Your task to perform on an android device: turn off priority inbox in the gmail app Image 0: 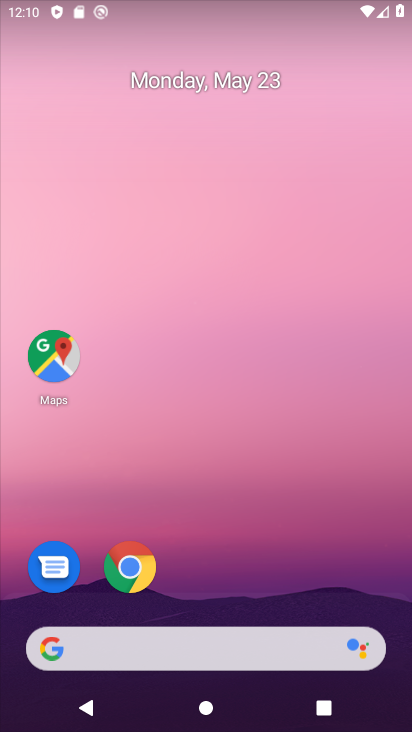
Step 0: drag from (298, 595) to (272, 93)
Your task to perform on an android device: turn off priority inbox in the gmail app Image 1: 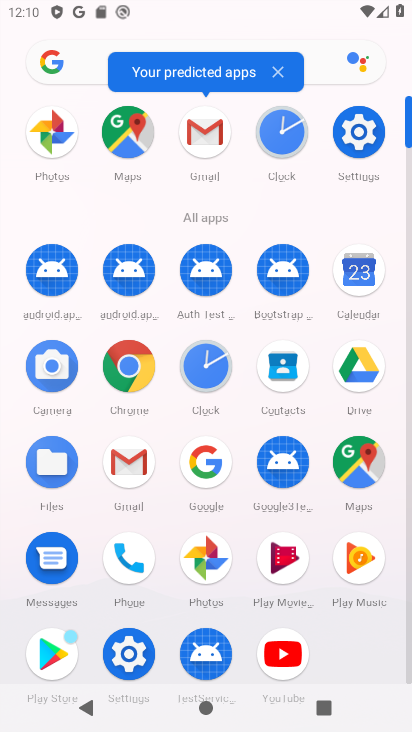
Step 1: click (201, 157)
Your task to perform on an android device: turn off priority inbox in the gmail app Image 2: 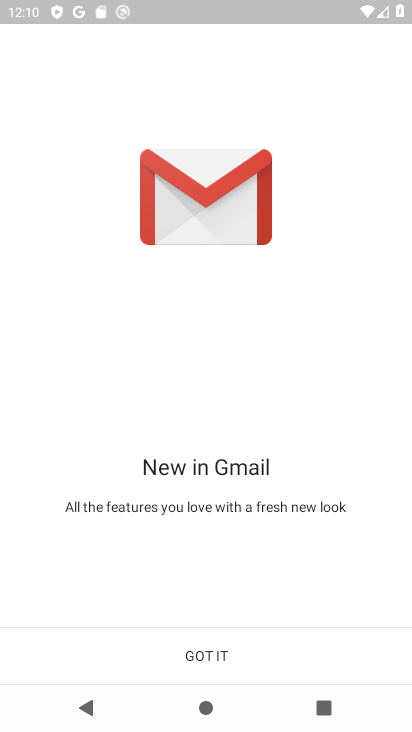
Step 2: click (206, 651)
Your task to perform on an android device: turn off priority inbox in the gmail app Image 3: 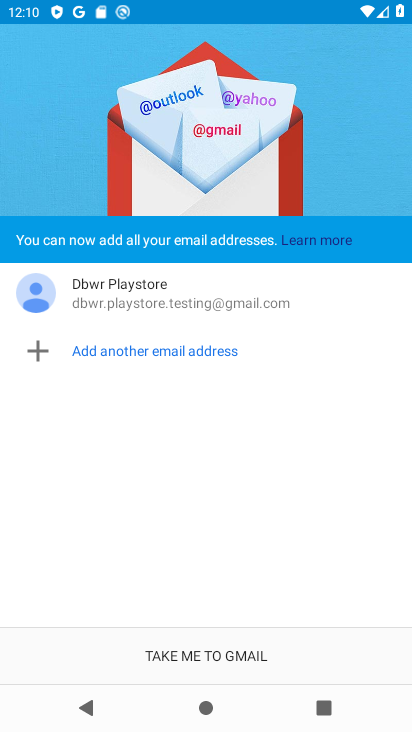
Step 3: click (206, 651)
Your task to perform on an android device: turn off priority inbox in the gmail app Image 4: 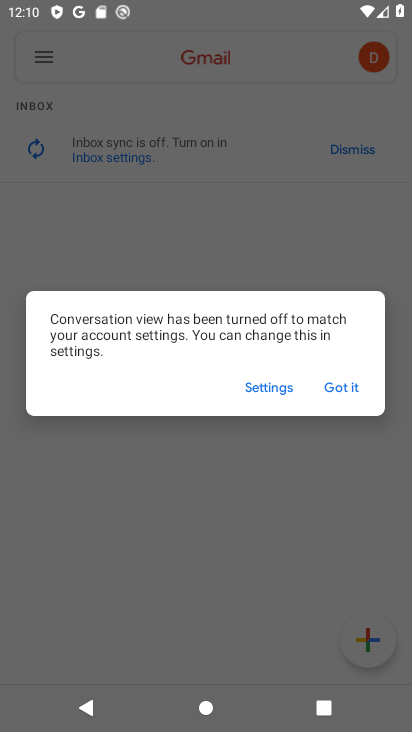
Step 4: click (357, 372)
Your task to perform on an android device: turn off priority inbox in the gmail app Image 5: 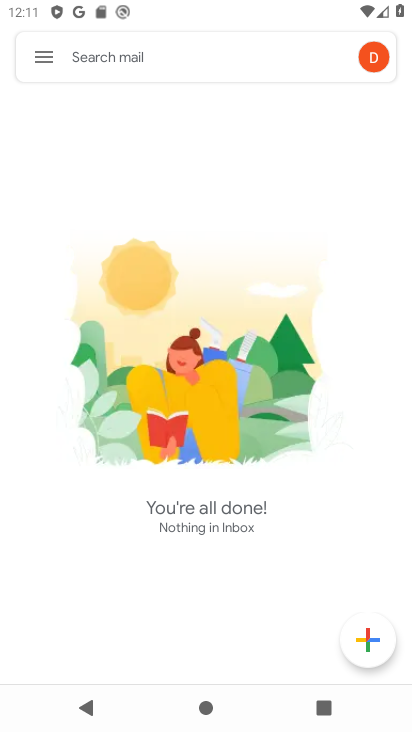
Step 5: click (50, 51)
Your task to perform on an android device: turn off priority inbox in the gmail app Image 6: 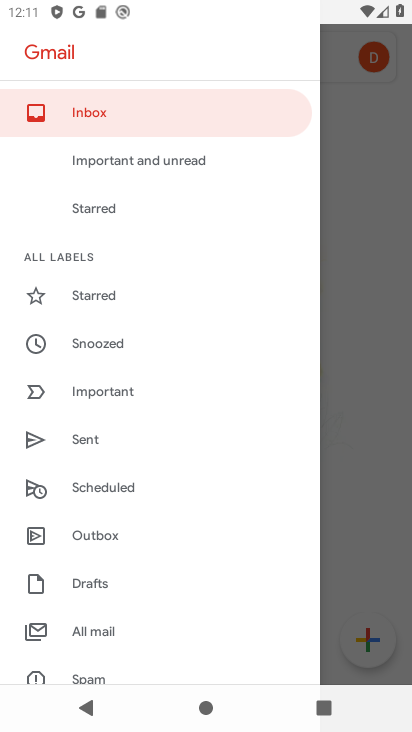
Step 6: drag from (128, 646) to (100, 131)
Your task to perform on an android device: turn off priority inbox in the gmail app Image 7: 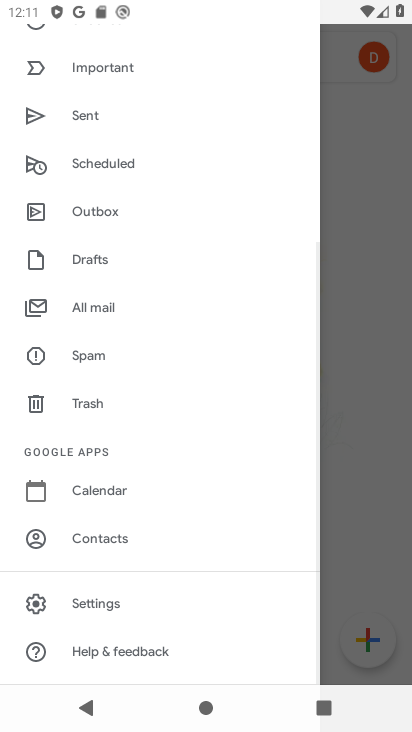
Step 7: click (112, 605)
Your task to perform on an android device: turn off priority inbox in the gmail app Image 8: 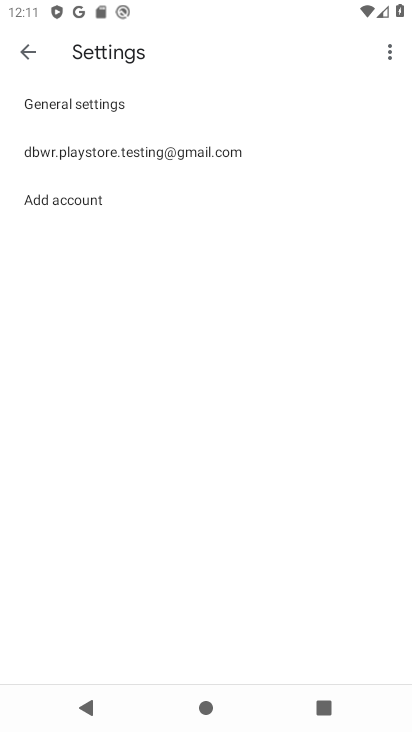
Step 8: click (139, 169)
Your task to perform on an android device: turn off priority inbox in the gmail app Image 9: 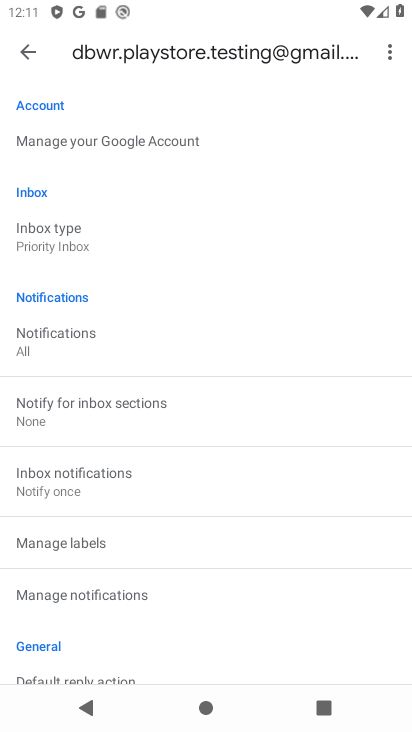
Step 9: click (126, 249)
Your task to perform on an android device: turn off priority inbox in the gmail app Image 10: 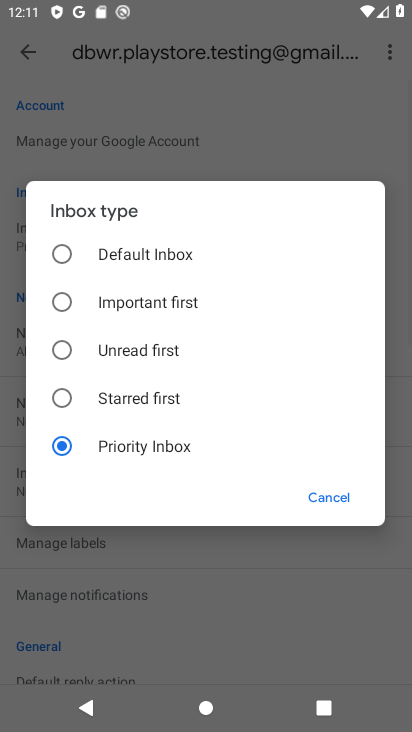
Step 10: click (139, 255)
Your task to perform on an android device: turn off priority inbox in the gmail app Image 11: 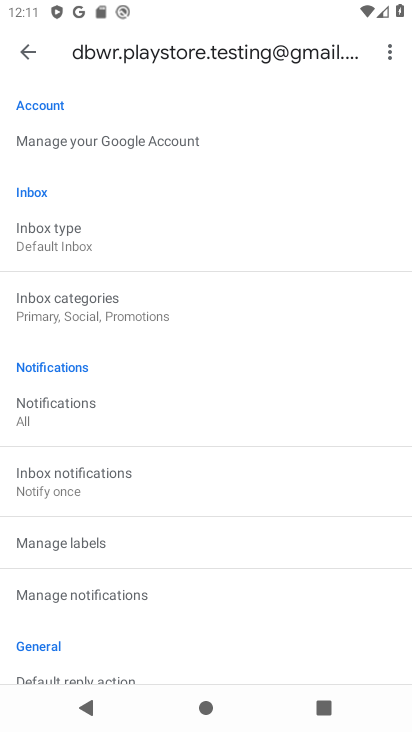
Step 11: task complete